Your task to perform on an android device: Search for Italian restaurants on Maps Image 0: 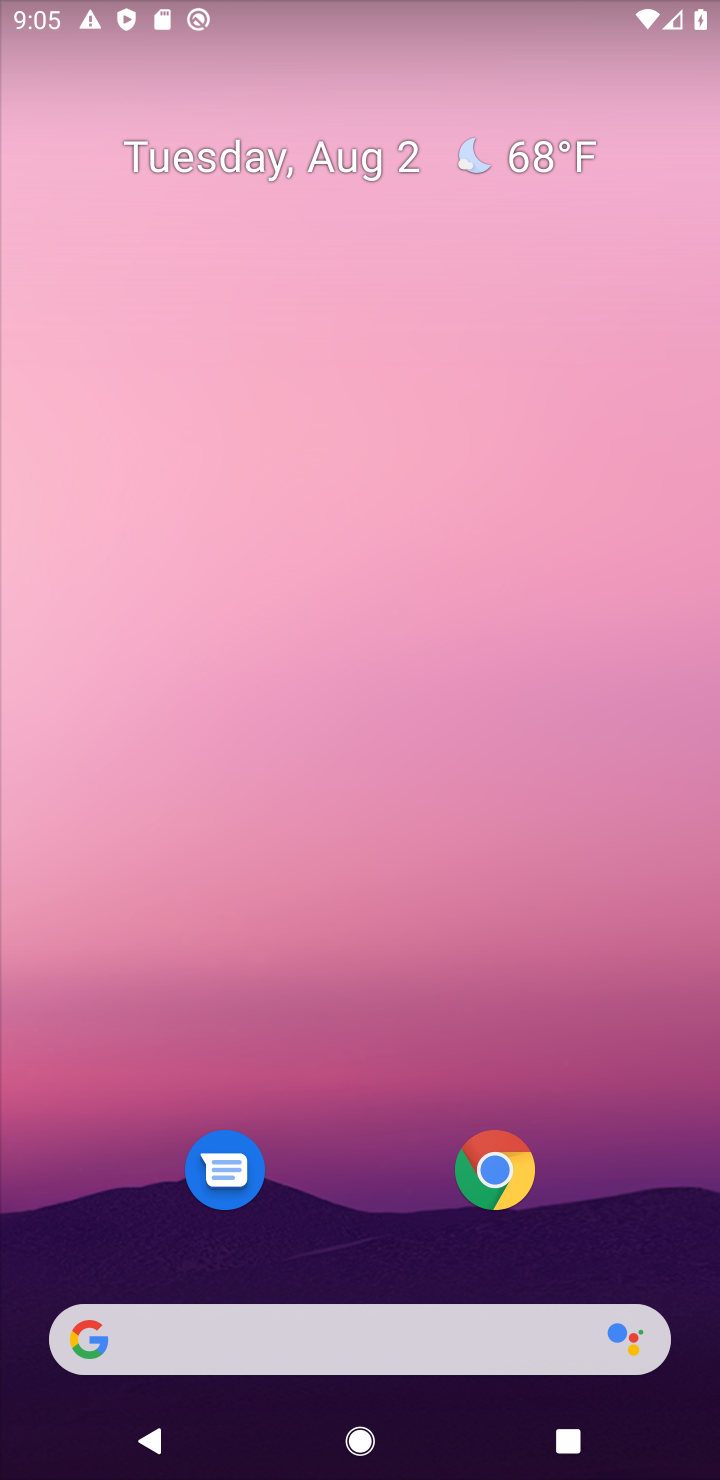
Step 0: drag from (307, 834) to (375, 229)
Your task to perform on an android device: Search for Italian restaurants on Maps Image 1: 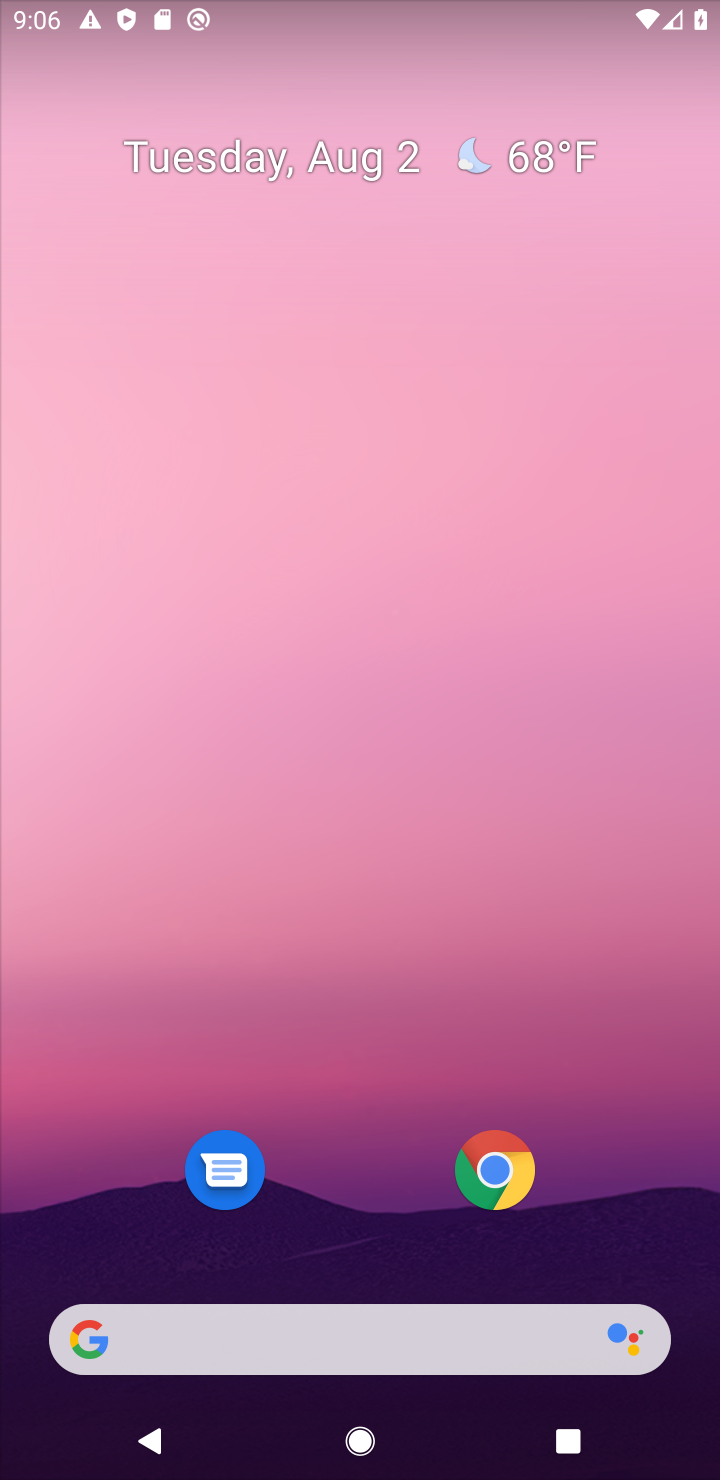
Step 1: drag from (356, 917) to (387, 70)
Your task to perform on an android device: Search for Italian restaurants on Maps Image 2: 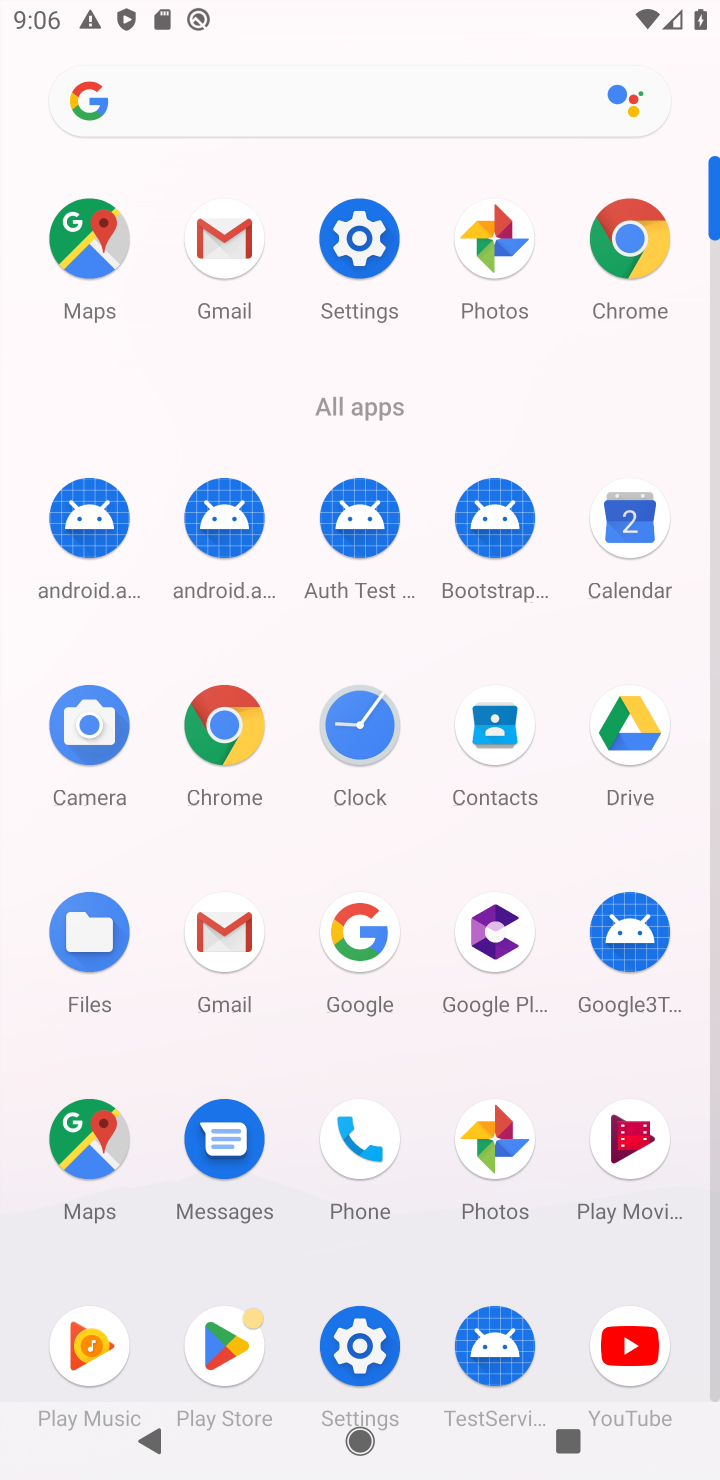
Step 2: click (104, 1175)
Your task to perform on an android device: Search for Italian restaurants on Maps Image 3: 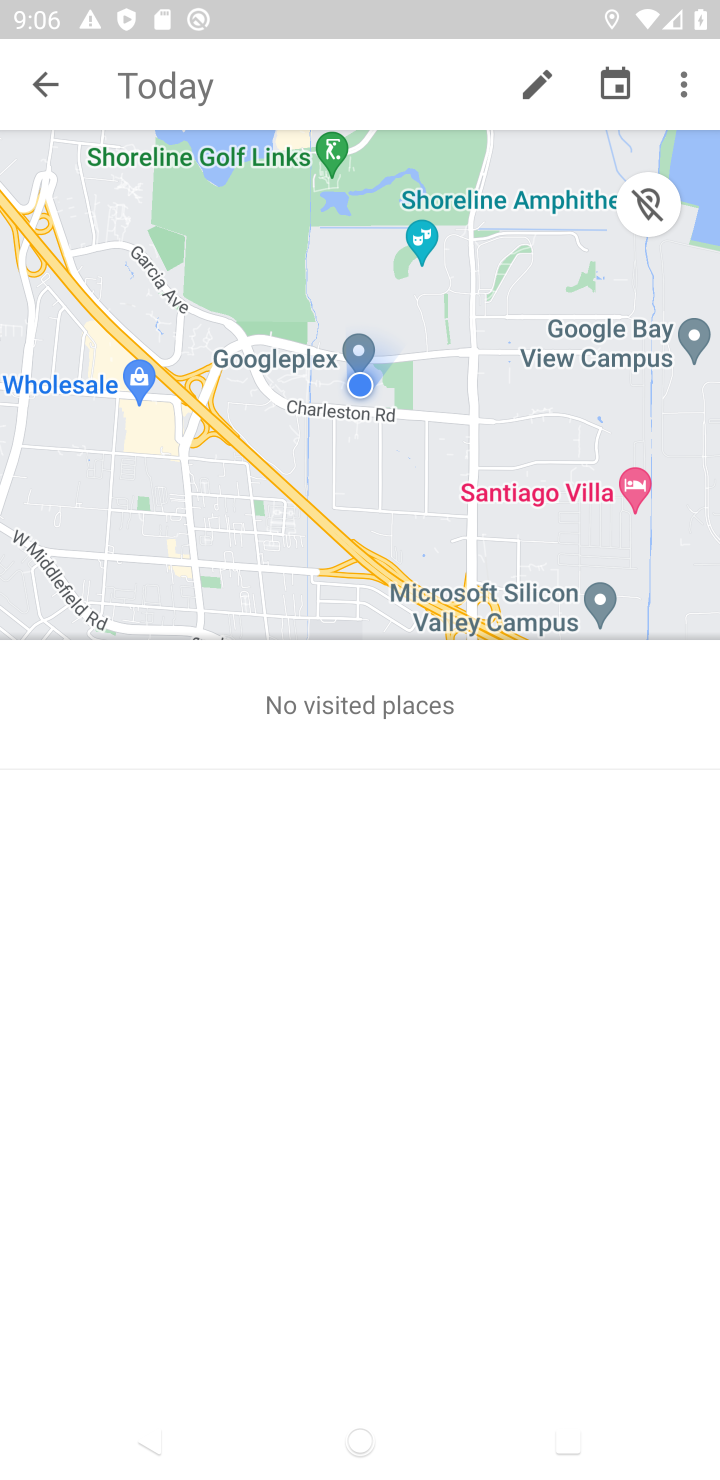
Step 3: click (37, 95)
Your task to perform on an android device: Search for Italian restaurants on Maps Image 4: 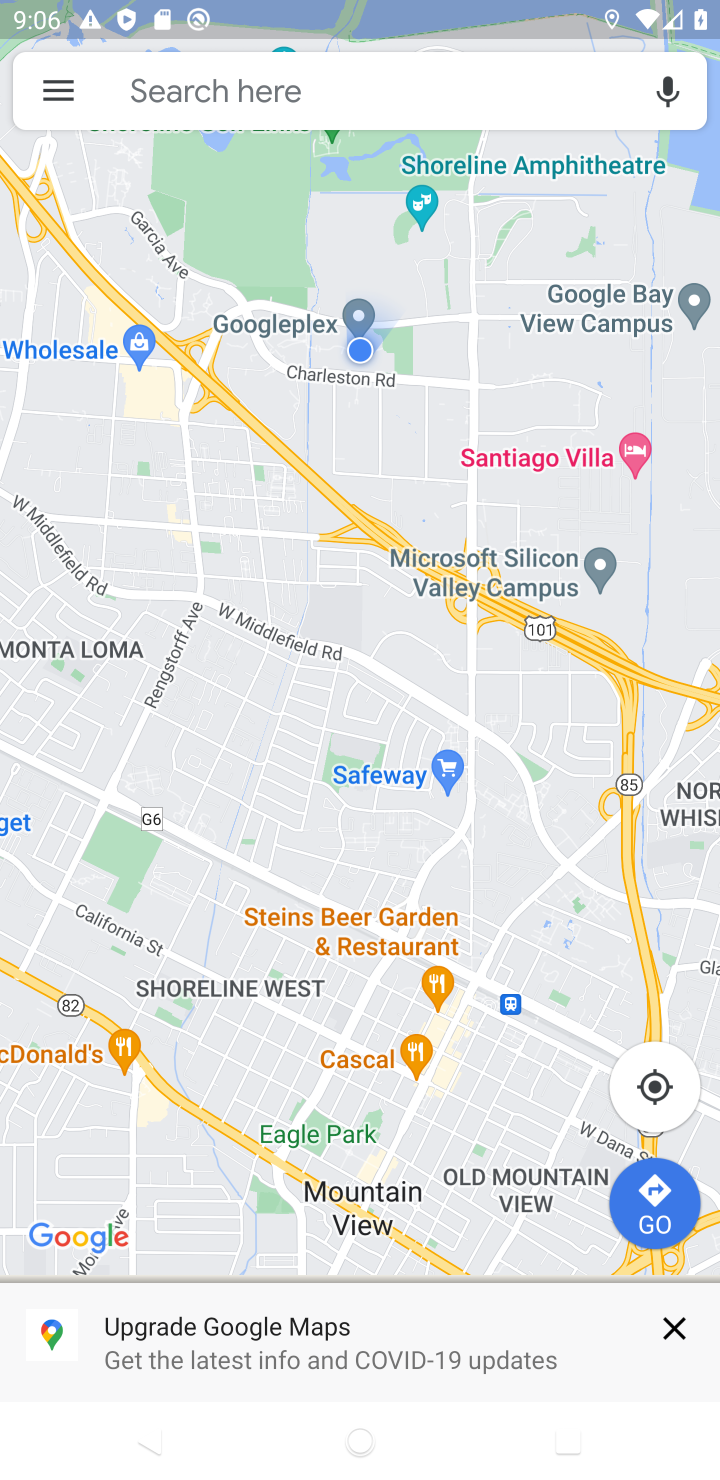
Step 4: click (266, 92)
Your task to perform on an android device: Search for Italian restaurants on Maps Image 5: 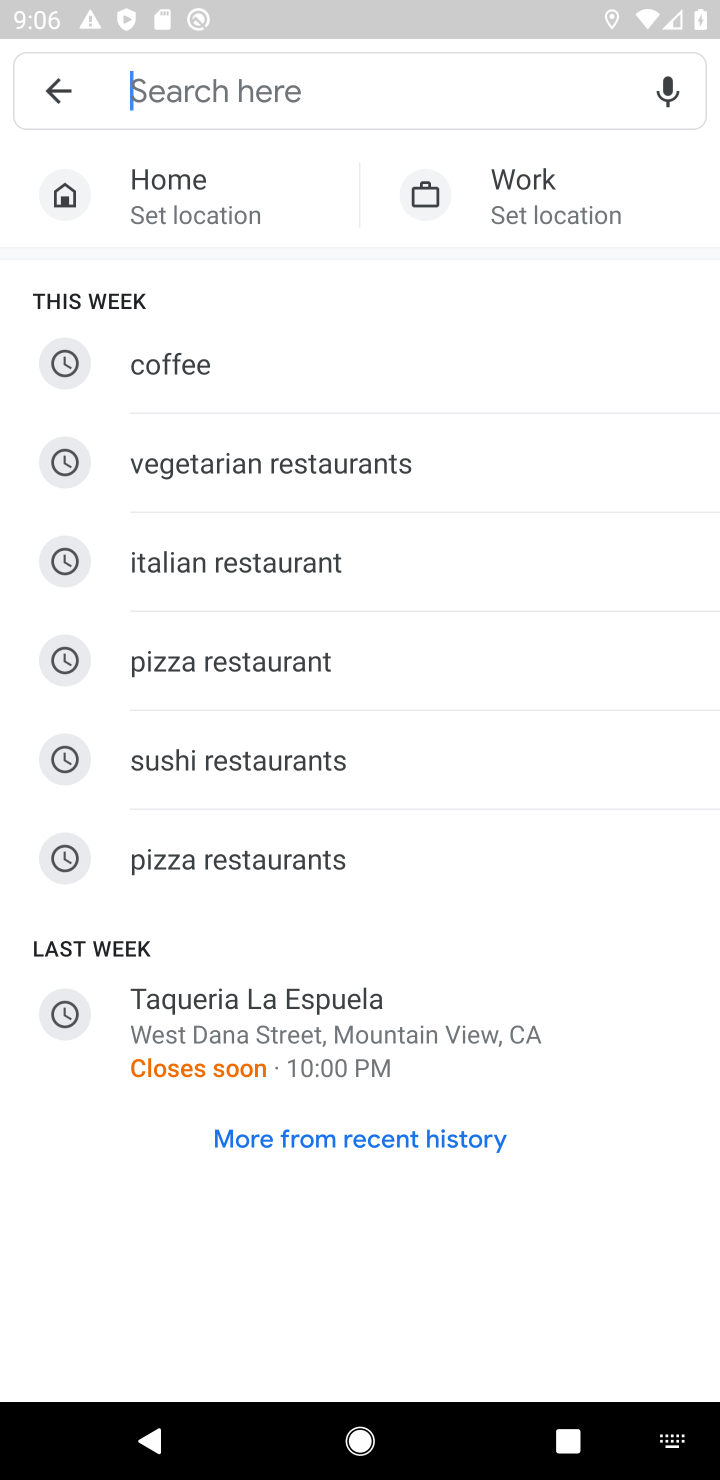
Step 5: click (295, 558)
Your task to perform on an android device: Search for Italian restaurants on Maps Image 6: 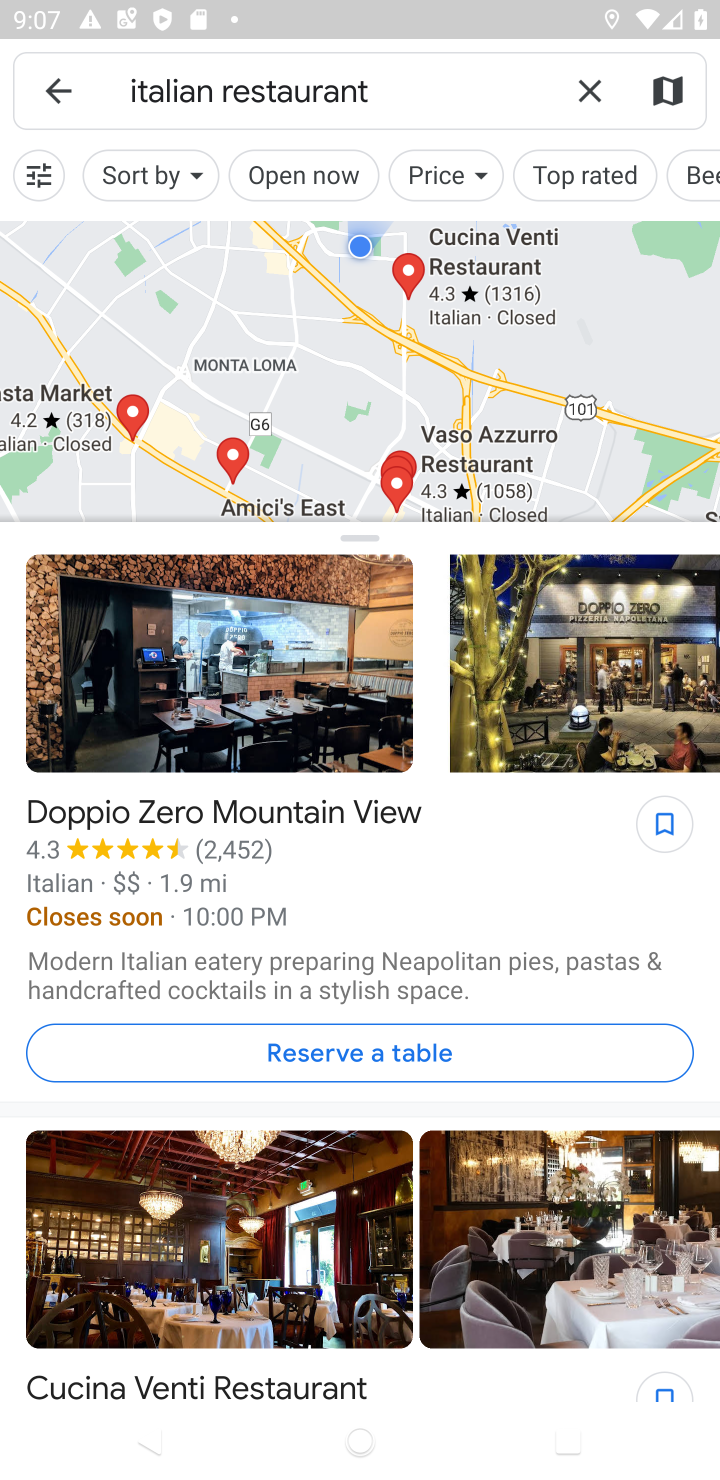
Step 6: task complete